Your task to perform on an android device: Play the last video I watched on Youtube Image 0: 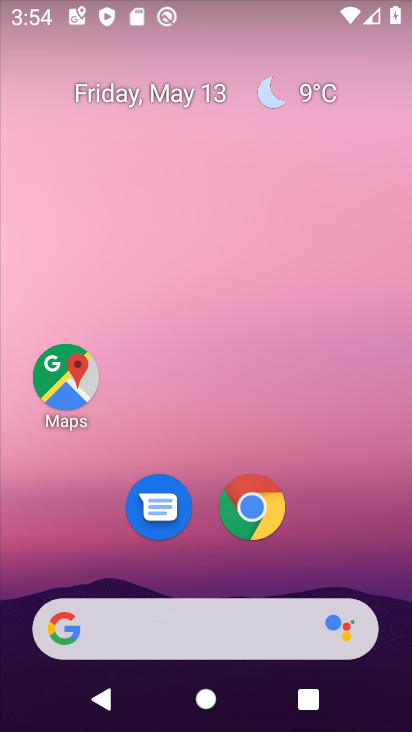
Step 0: click (304, 47)
Your task to perform on an android device: Play the last video I watched on Youtube Image 1: 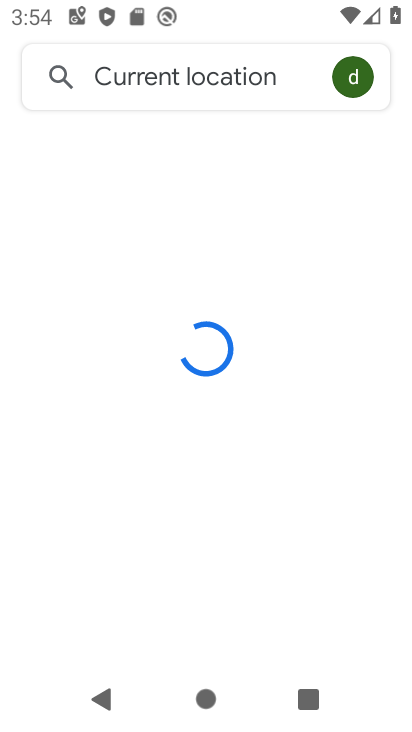
Step 1: press home button
Your task to perform on an android device: Play the last video I watched on Youtube Image 2: 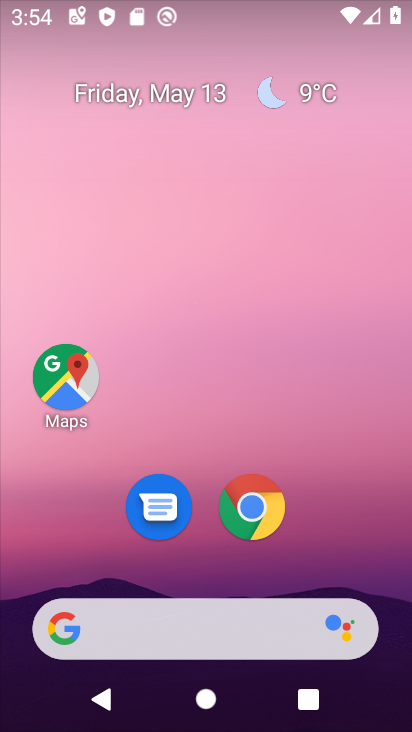
Step 2: drag from (340, 501) to (295, 7)
Your task to perform on an android device: Play the last video I watched on Youtube Image 3: 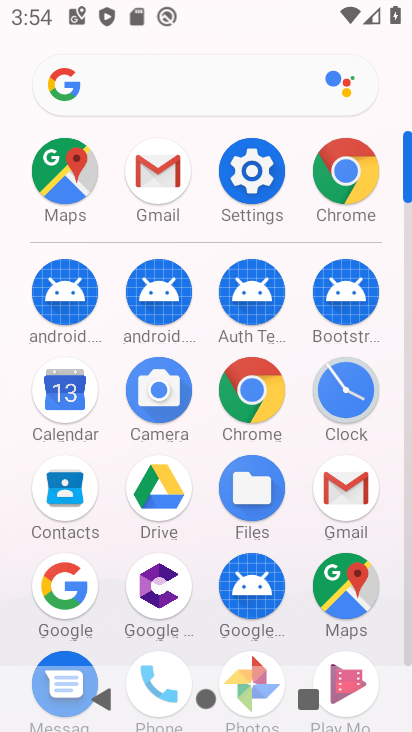
Step 3: drag from (383, 533) to (354, 167)
Your task to perform on an android device: Play the last video I watched on Youtube Image 4: 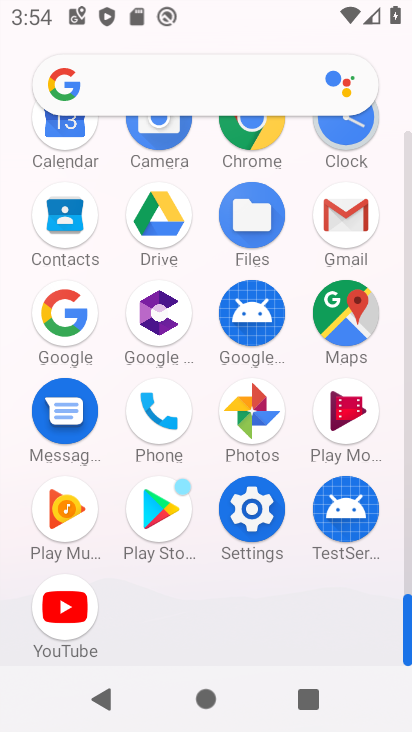
Step 4: click (69, 626)
Your task to perform on an android device: Play the last video I watched on Youtube Image 5: 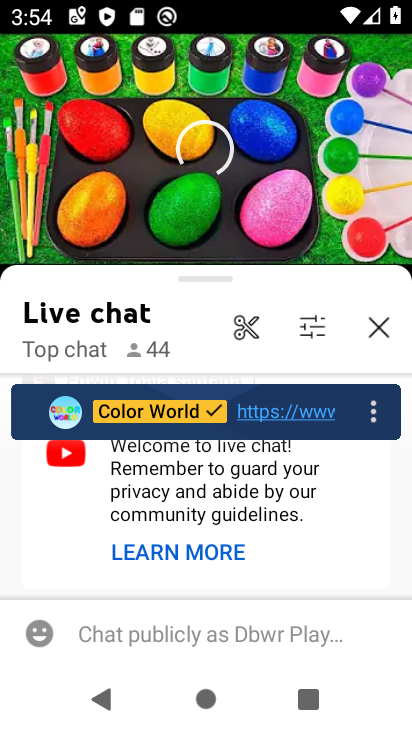
Step 5: task complete